Your task to perform on an android device: open the mobile data screen to see how much data has been used Image 0: 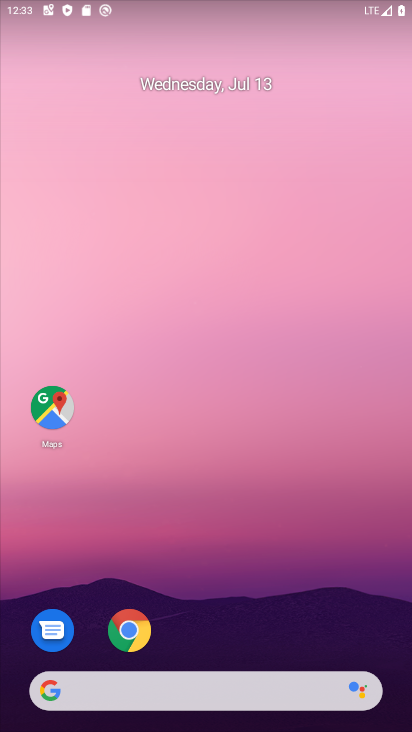
Step 0: drag from (383, 630) to (234, 10)
Your task to perform on an android device: open the mobile data screen to see how much data has been used Image 1: 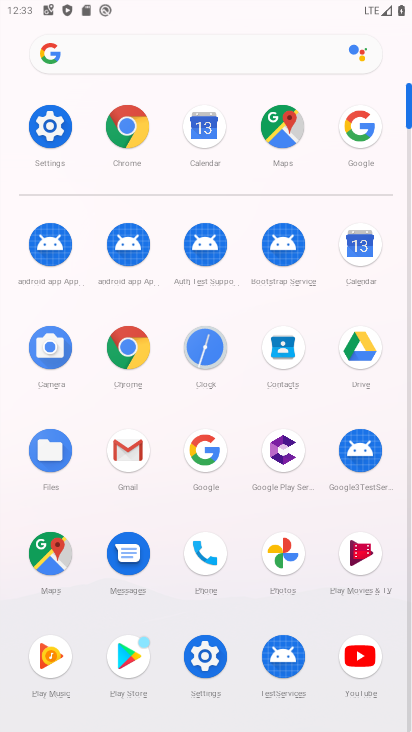
Step 1: click (48, 136)
Your task to perform on an android device: open the mobile data screen to see how much data has been used Image 2: 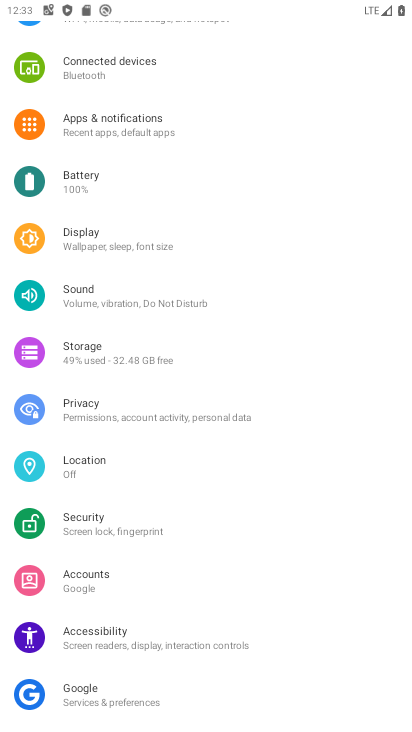
Step 2: drag from (136, 121) to (152, 724)
Your task to perform on an android device: open the mobile data screen to see how much data has been used Image 3: 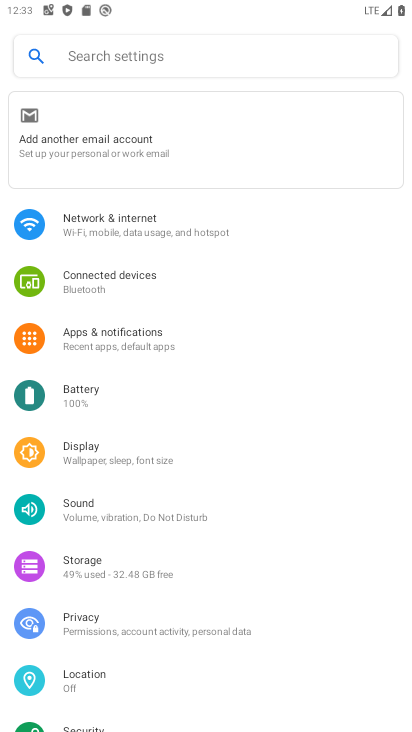
Step 3: click (194, 236)
Your task to perform on an android device: open the mobile data screen to see how much data has been used Image 4: 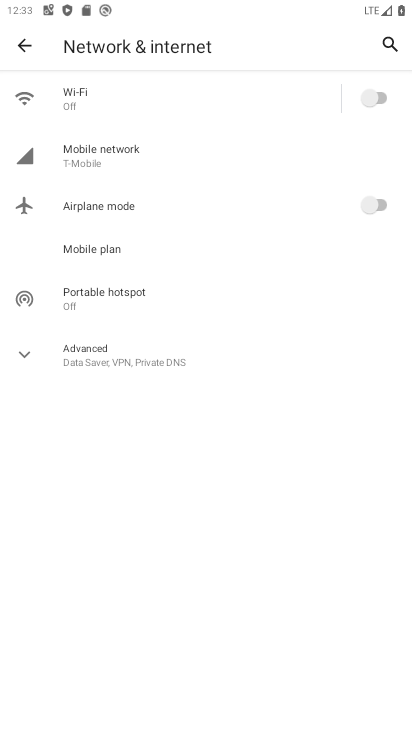
Step 4: click (150, 163)
Your task to perform on an android device: open the mobile data screen to see how much data has been used Image 5: 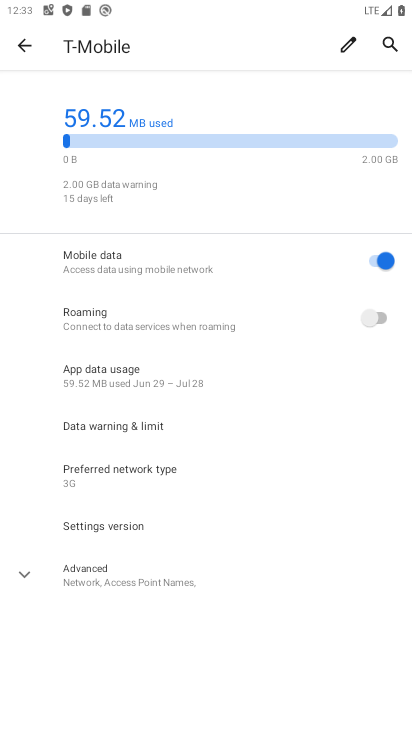
Step 5: click (107, 383)
Your task to perform on an android device: open the mobile data screen to see how much data has been used Image 6: 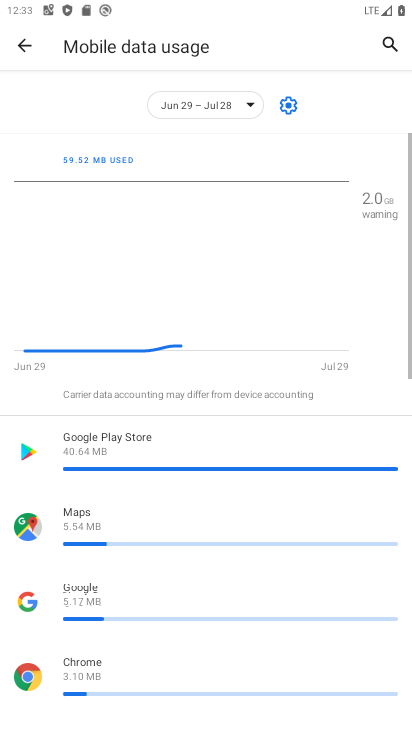
Step 6: task complete